Your task to perform on an android device: toggle show notifications on the lock screen Image 0: 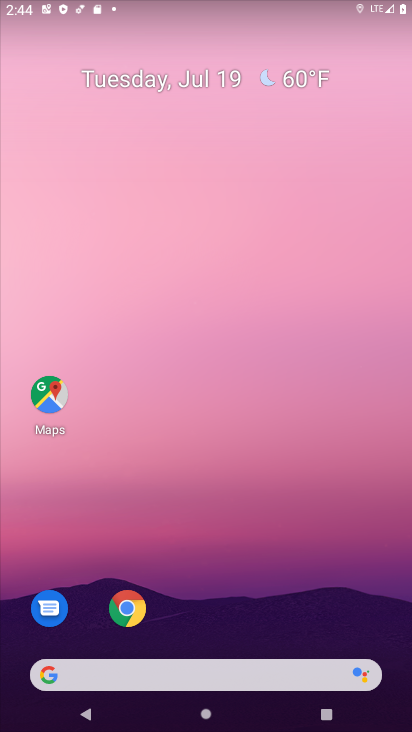
Step 0: drag from (258, 584) to (179, 47)
Your task to perform on an android device: toggle show notifications on the lock screen Image 1: 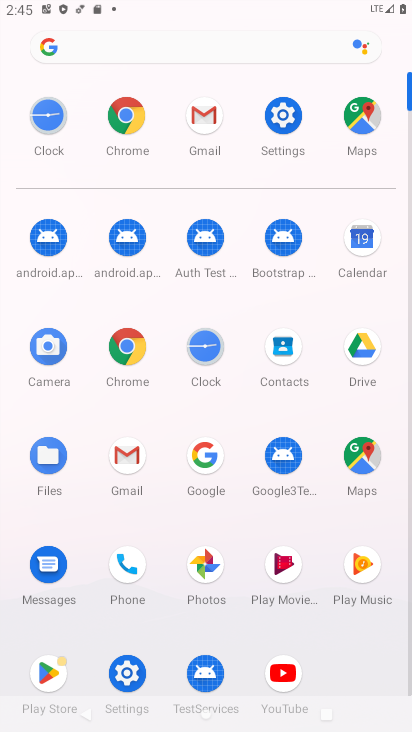
Step 1: click (273, 115)
Your task to perform on an android device: toggle show notifications on the lock screen Image 2: 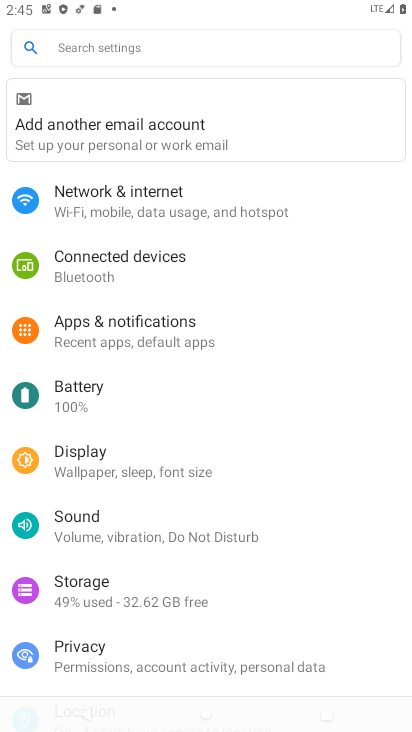
Step 2: click (167, 341)
Your task to perform on an android device: toggle show notifications on the lock screen Image 3: 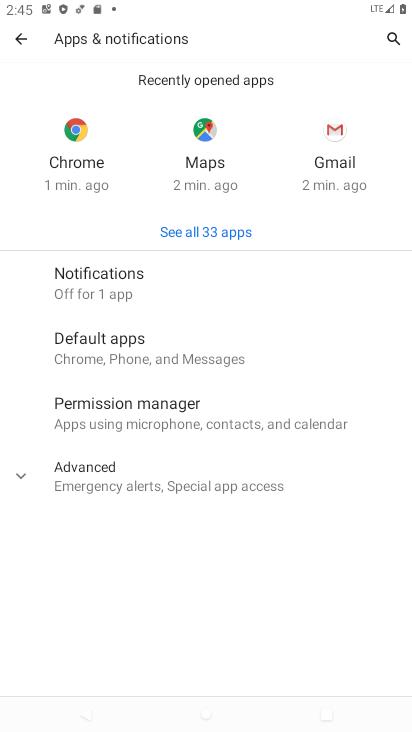
Step 3: click (104, 276)
Your task to perform on an android device: toggle show notifications on the lock screen Image 4: 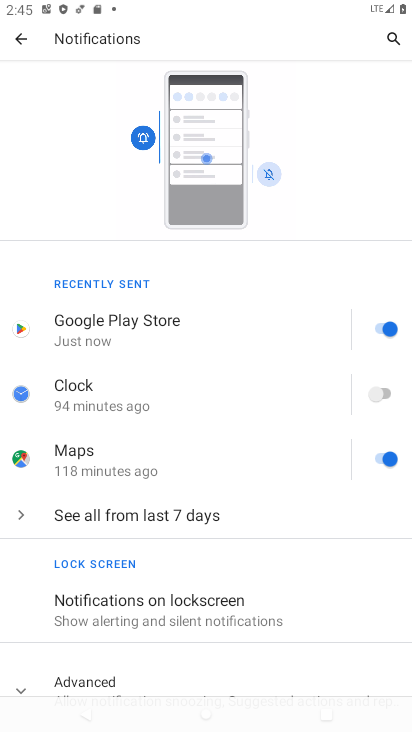
Step 4: drag from (180, 654) to (219, 315)
Your task to perform on an android device: toggle show notifications on the lock screen Image 5: 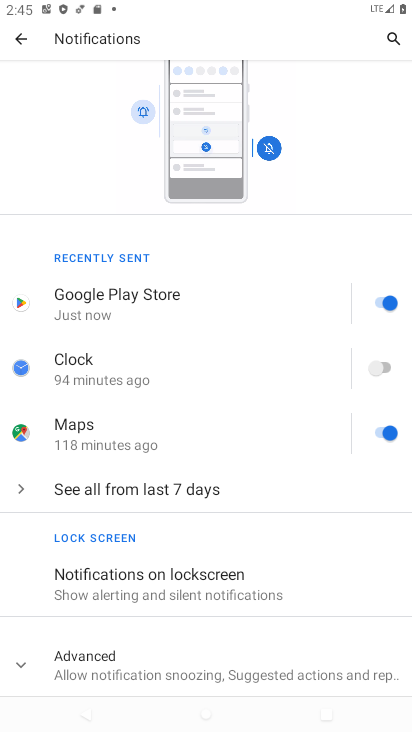
Step 5: click (150, 581)
Your task to perform on an android device: toggle show notifications on the lock screen Image 6: 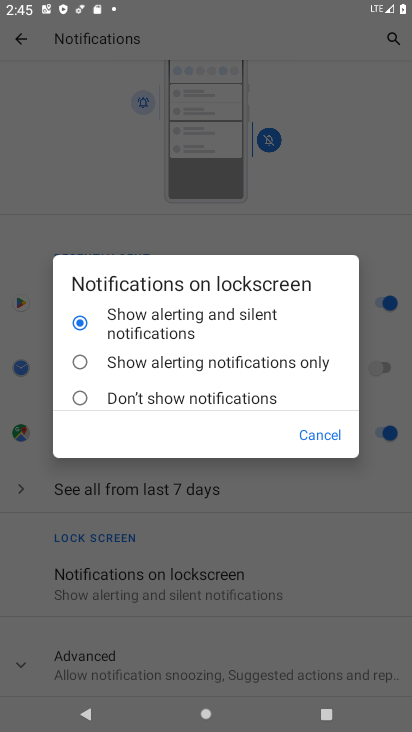
Step 6: click (129, 362)
Your task to perform on an android device: toggle show notifications on the lock screen Image 7: 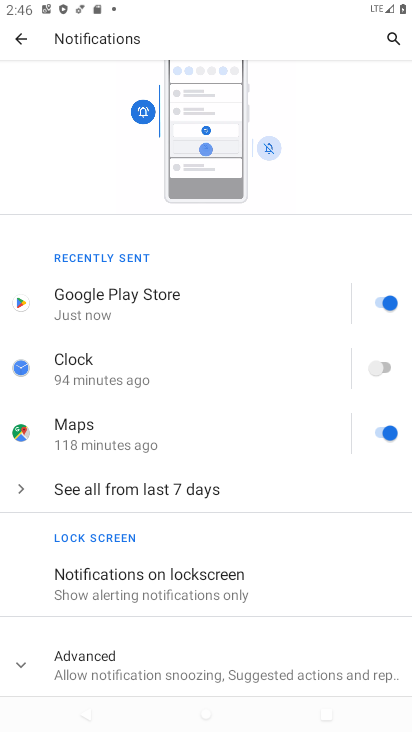
Step 7: task complete